Your task to perform on an android device: remove spam from my inbox in the gmail app Image 0: 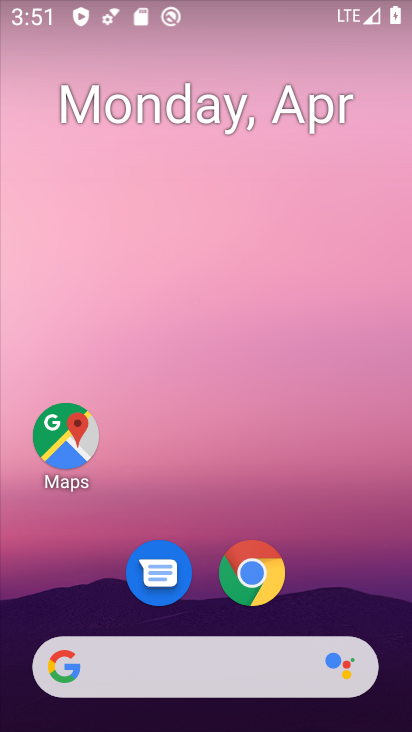
Step 0: drag from (371, 573) to (349, 147)
Your task to perform on an android device: remove spam from my inbox in the gmail app Image 1: 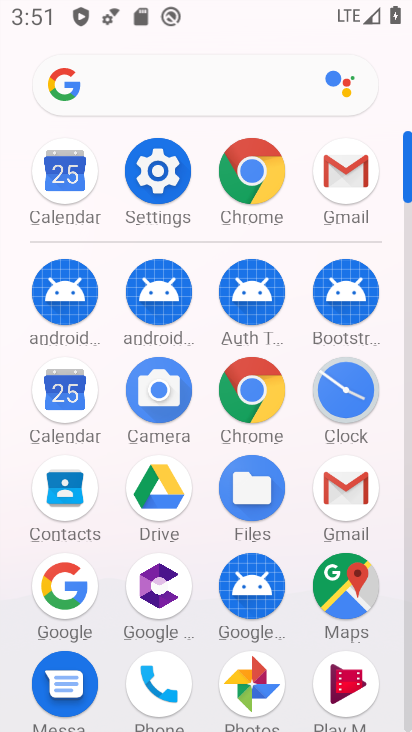
Step 1: click (356, 502)
Your task to perform on an android device: remove spam from my inbox in the gmail app Image 2: 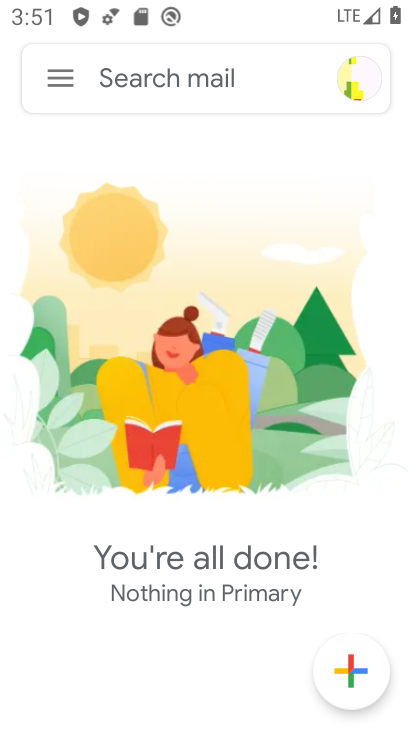
Step 2: click (62, 82)
Your task to perform on an android device: remove spam from my inbox in the gmail app Image 3: 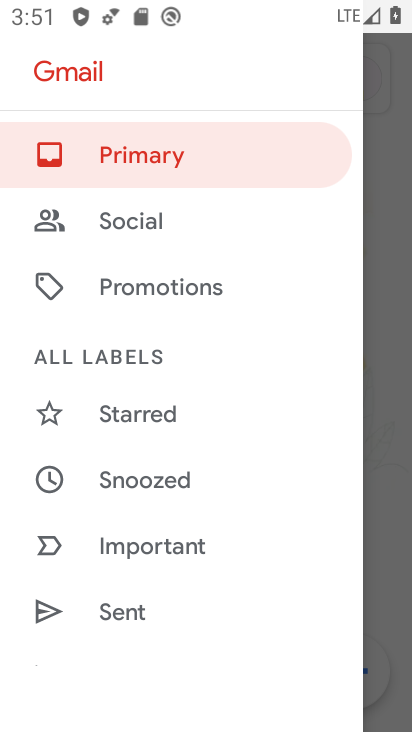
Step 3: drag from (273, 542) to (290, 418)
Your task to perform on an android device: remove spam from my inbox in the gmail app Image 4: 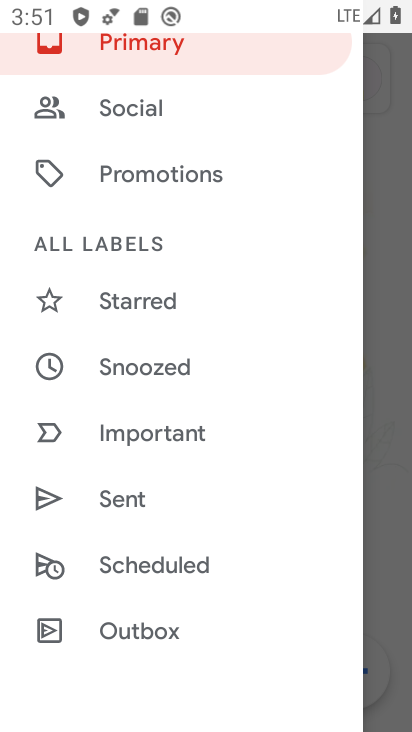
Step 4: drag from (274, 608) to (278, 435)
Your task to perform on an android device: remove spam from my inbox in the gmail app Image 5: 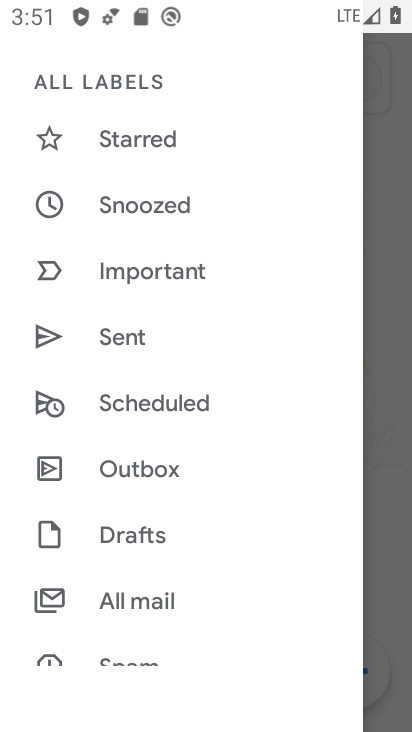
Step 5: drag from (283, 623) to (282, 459)
Your task to perform on an android device: remove spam from my inbox in the gmail app Image 6: 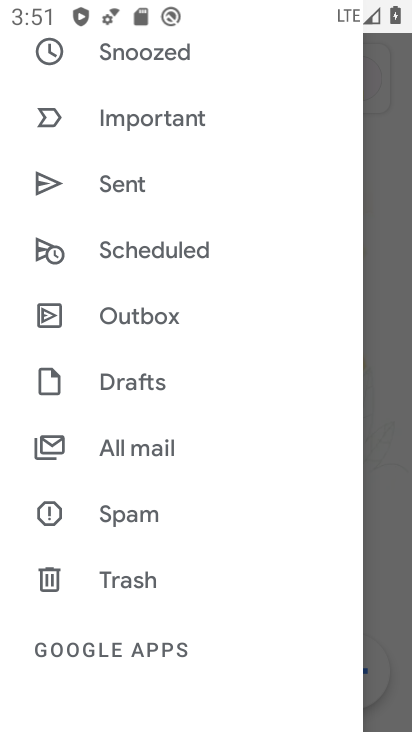
Step 6: drag from (278, 616) to (276, 420)
Your task to perform on an android device: remove spam from my inbox in the gmail app Image 7: 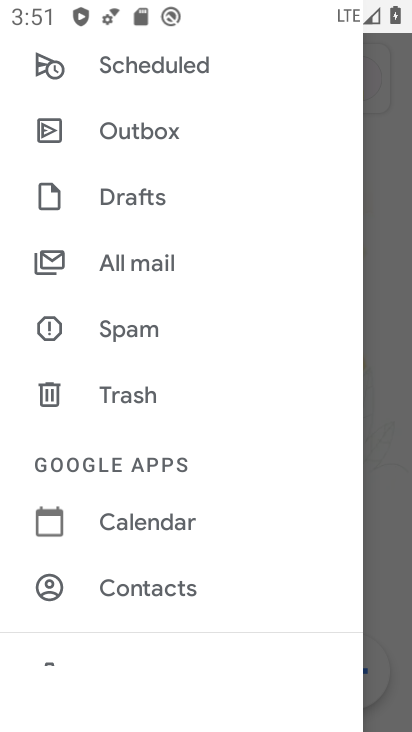
Step 7: drag from (262, 586) to (279, 359)
Your task to perform on an android device: remove spam from my inbox in the gmail app Image 8: 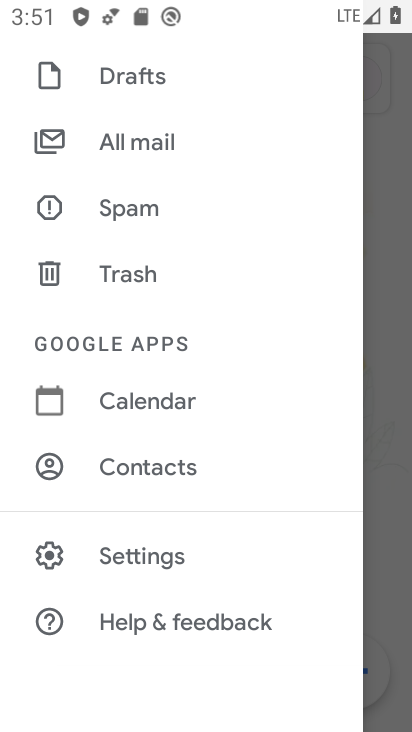
Step 8: drag from (284, 284) to (272, 444)
Your task to perform on an android device: remove spam from my inbox in the gmail app Image 9: 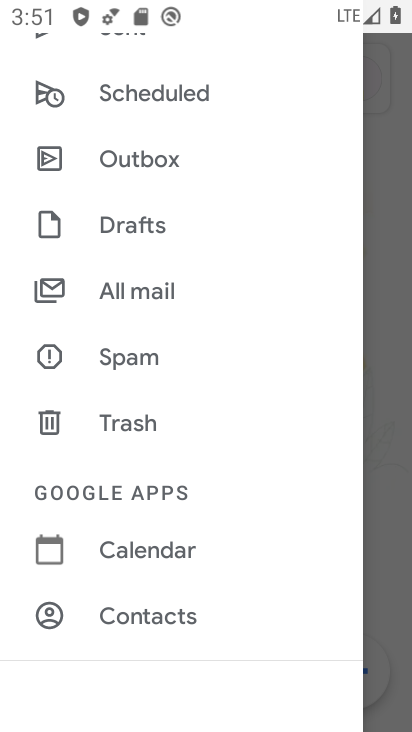
Step 9: drag from (277, 264) to (270, 442)
Your task to perform on an android device: remove spam from my inbox in the gmail app Image 10: 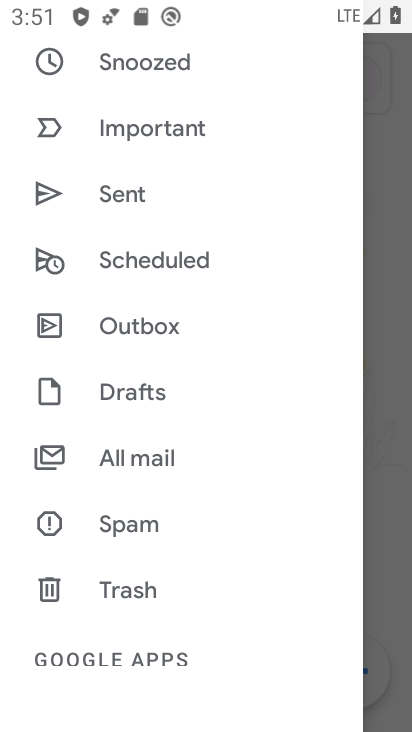
Step 10: click (159, 526)
Your task to perform on an android device: remove spam from my inbox in the gmail app Image 11: 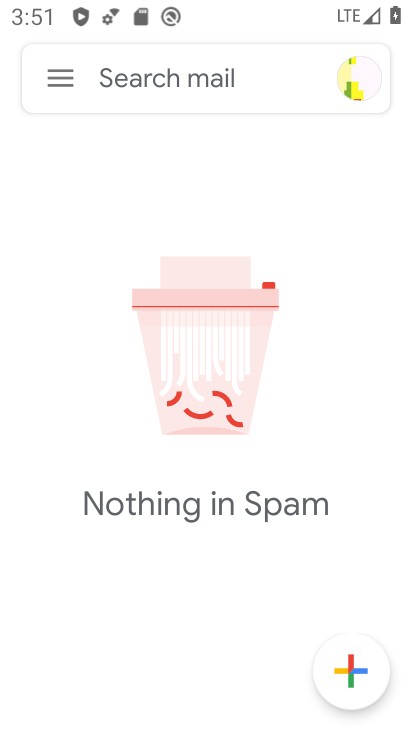
Step 11: task complete